Your task to perform on an android device: turn on location history Image 0: 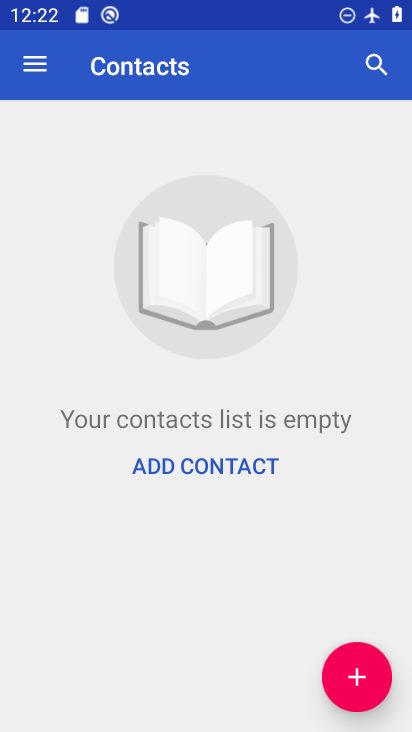
Step 0: press home button
Your task to perform on an android device: turn on location history Image 1: 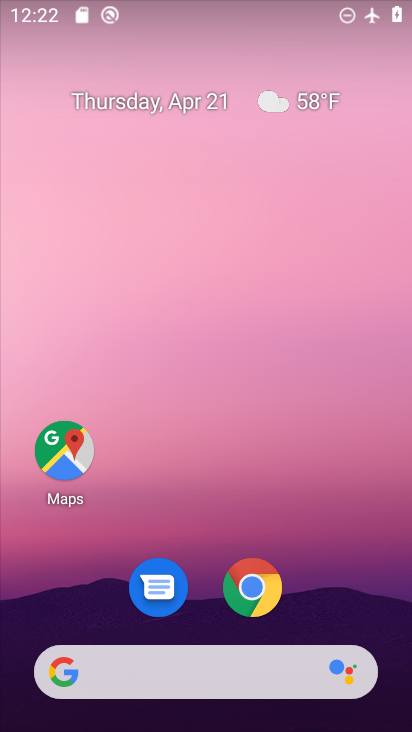
Step 1: drag from (205, 570) to (324, 17)
Your task to perform on an android device: turn on location history Image 2: 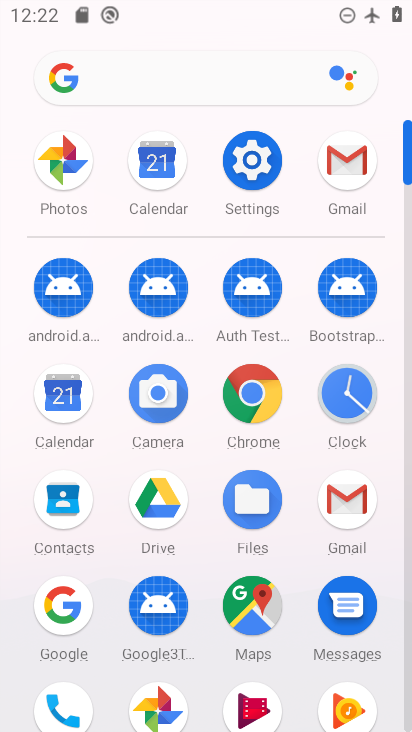
Step 2: click (253, 160)
Your task to perform on an android device: turn on location history Image 3: 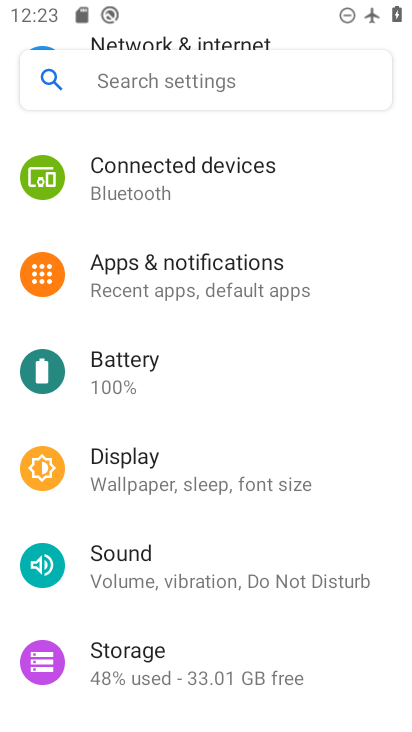
Step 3: drag from (164, 538) to (248, 103)
Your task to perform on an android device: turn on location history Image 4: 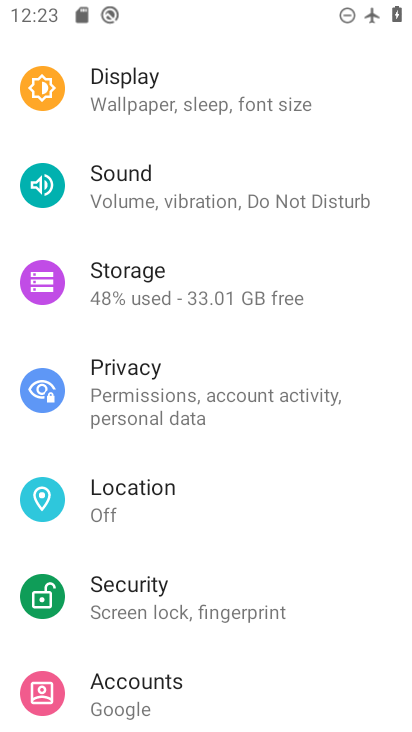
Step 4: click (148, 512)
Your task to perform on an android device: turn on location history Image 5: 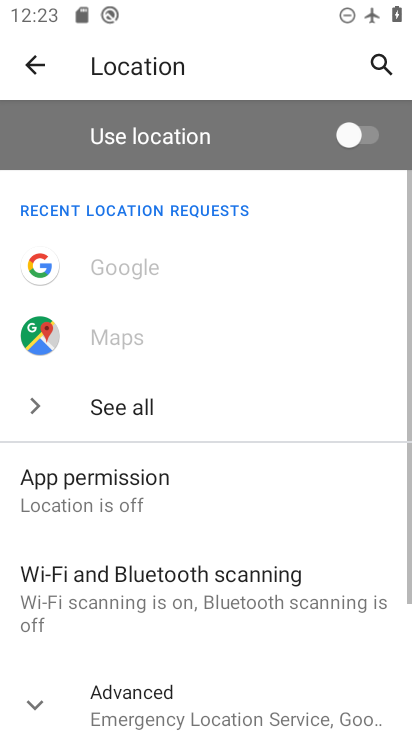
Step 5: drag from (144, 607) to (222, 253)
Your task to perform on an android device: turn on location history Image 6: 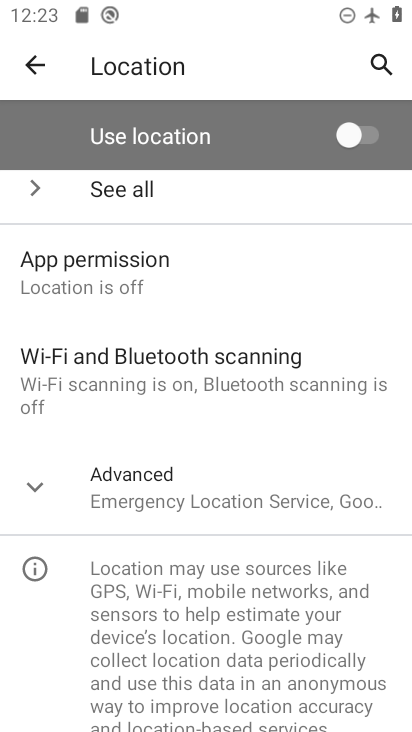
Step 6: click (178, 474)
Your task to perform on an android device: turn on location history Image 7: 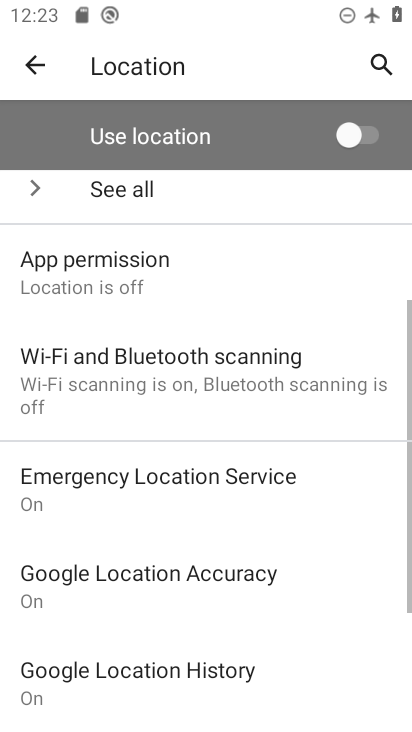
Step 7: click (132, 496)
Your task to perform on an android device: turn on location history Image 8: 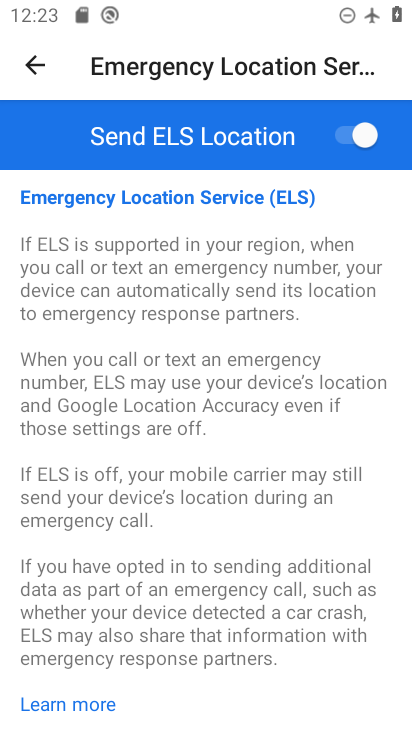
Step 8: click (142, 483)
Your task to perform on an android device: turn on location history Image 9: 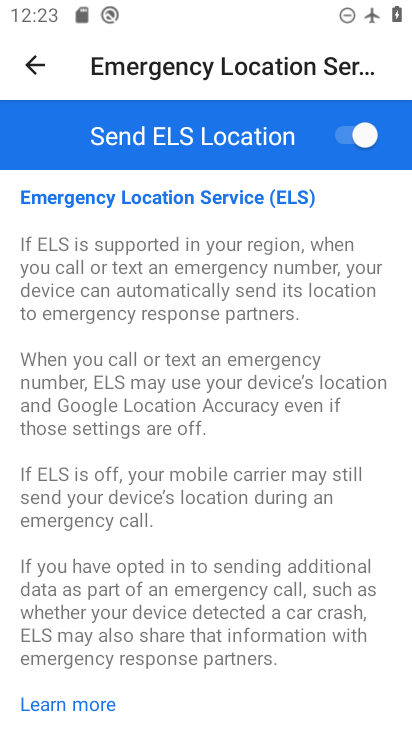
Step 9: click (31, 64)
Your task to perform on an android device: turn on location history Image 10: 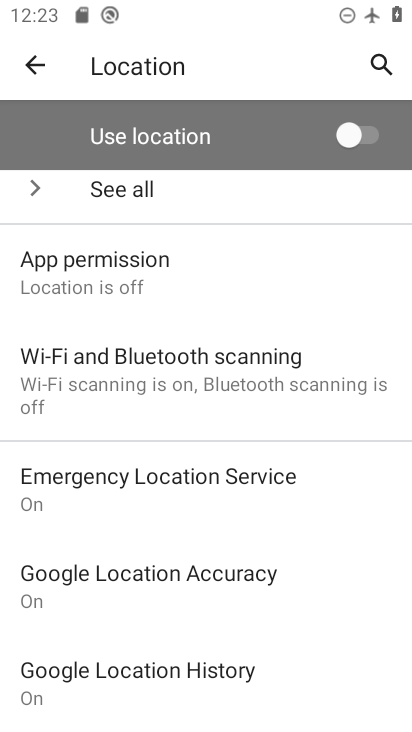
Step 10: click (153, 673)
Your task to perform on an android device: turn on location history Image 11: 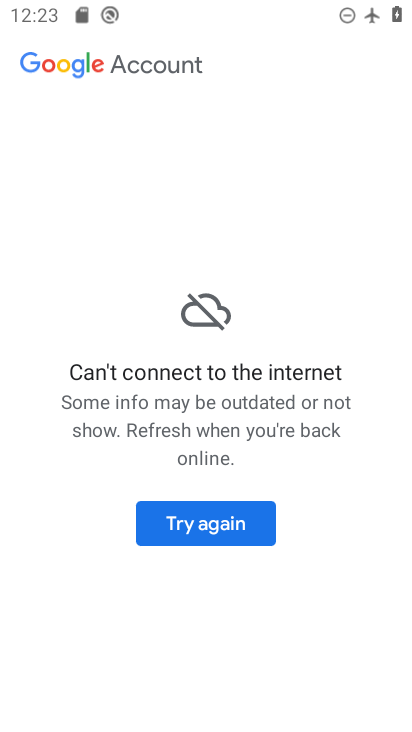
Step 11: task complete